Your task to perform on an android device: Go to Maps Image 0: 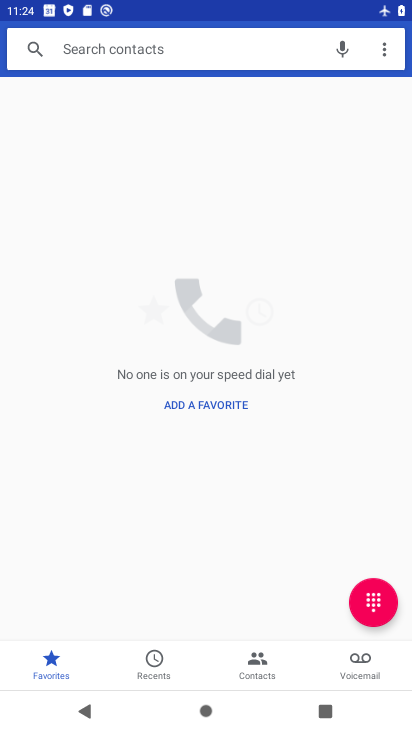
Step 0: press back button
Your task to perform on an android device: Go to Maps Image 1: 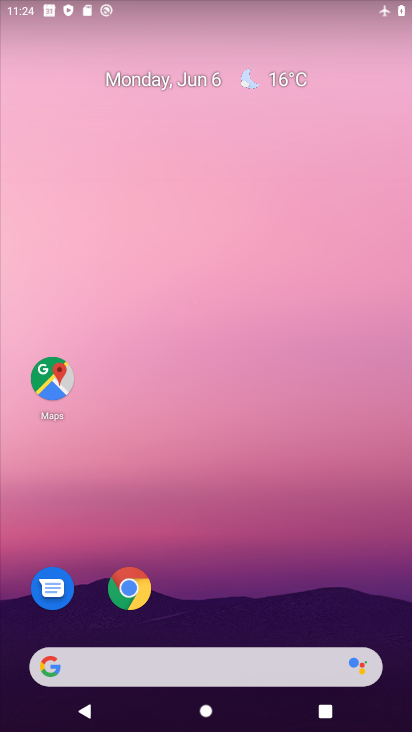
Step 1: click (53, 379)
Your task to perform on an android device: Go to Maps Image 2: 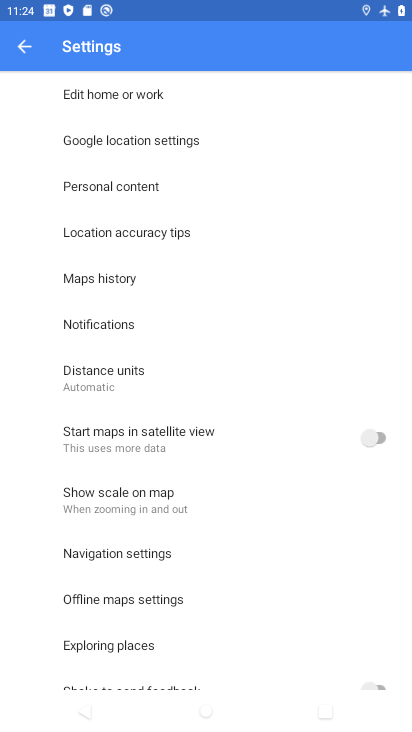
Step 2: click (29, 51)
Your task to perform on an android device: Go to Maps Image 3: 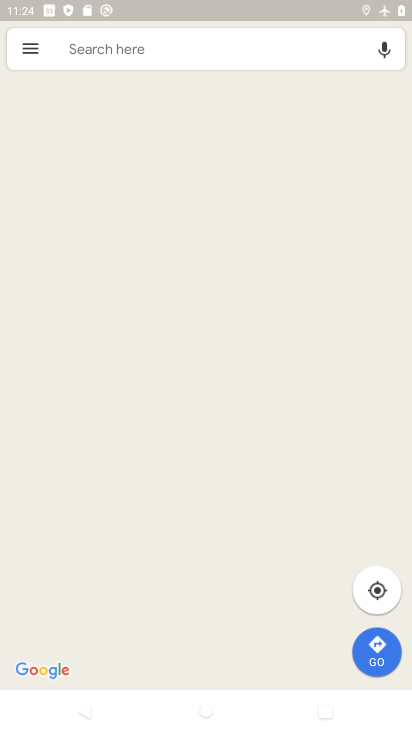
Step 3: task complete